Your task to perform on an android device: toggle pop-ups in chrome Image 0: 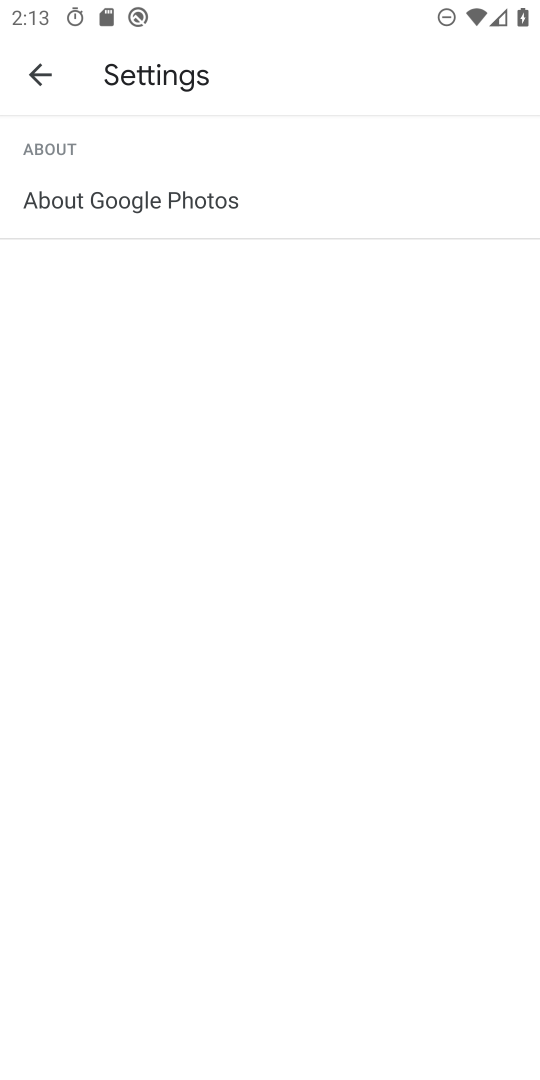
Step 0: press home button
Your task to perform on an android device: toggle pop-ups in chrome Image 1: 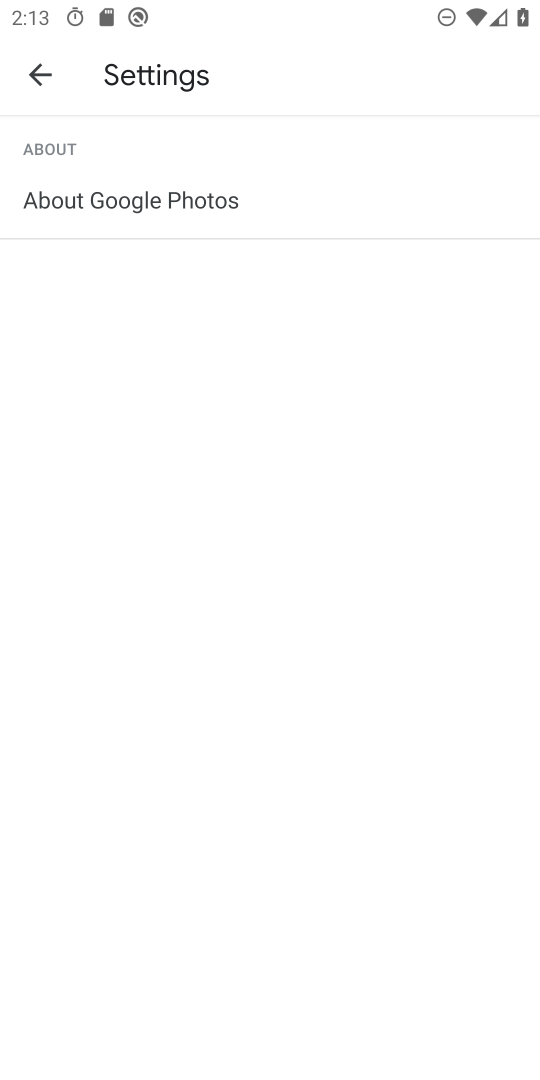
Step 1: press home button
Your task to perform on an android device: toggle pop-ups in chrome Image 2: 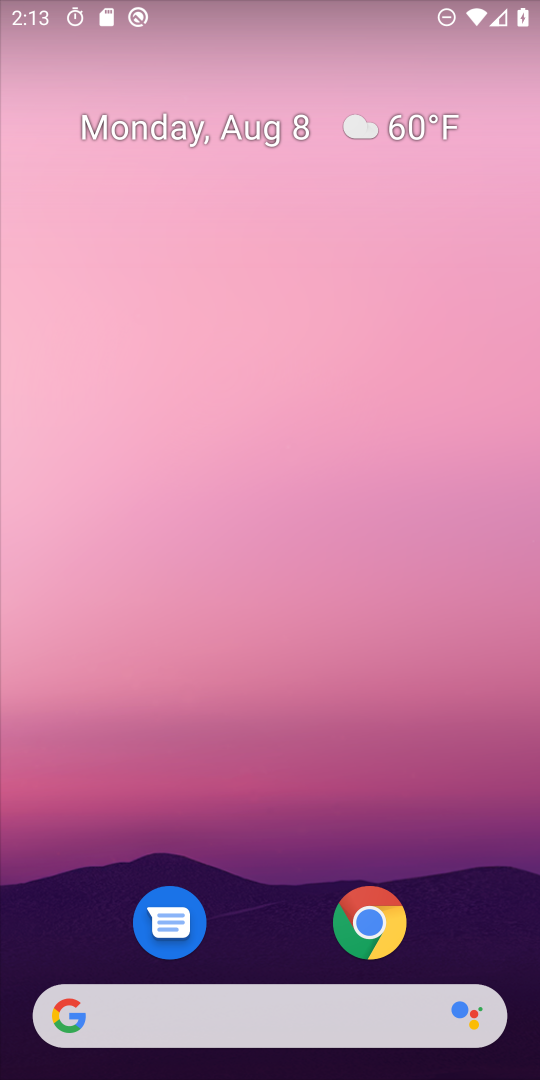
Step 2: drag from (291, 865) to (347, 63)
Your task to perform on an android device: toggle pop-ups in chrome Image 3: 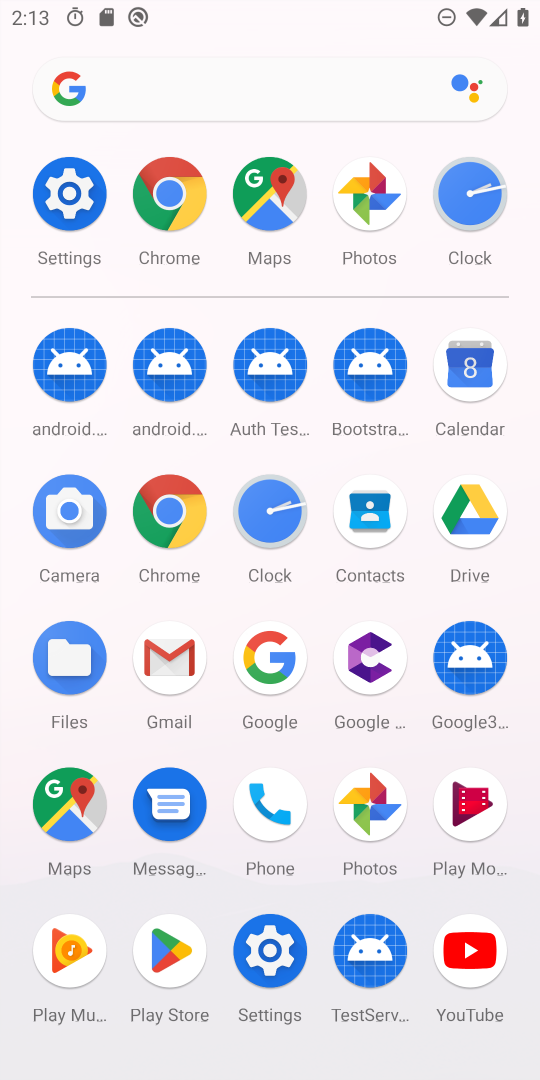
Step 3: click (171, 512)
Your task to perform on an android device: toggle pop-ups in chrome Image 4: 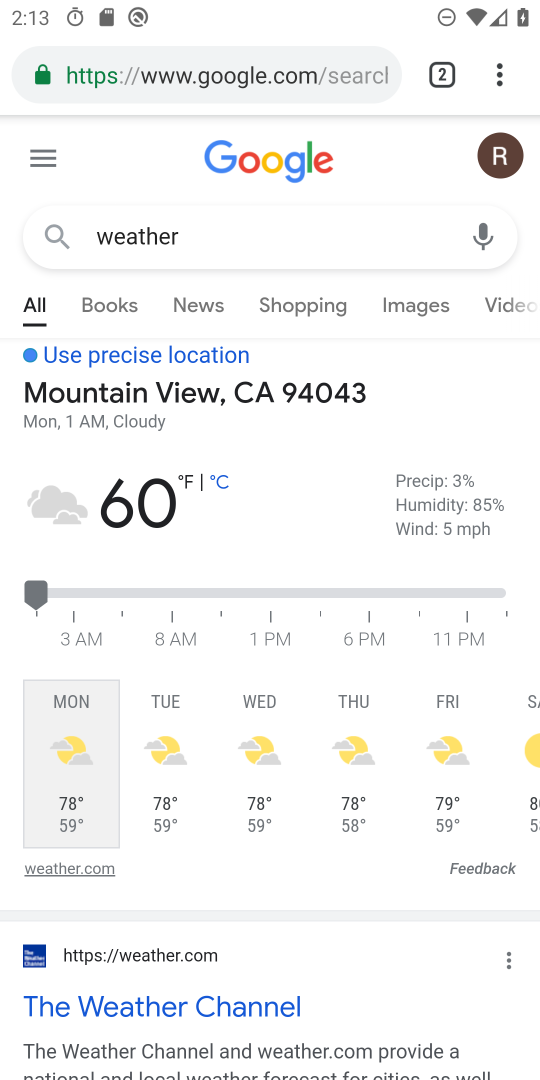
Step 4: drag from (496, 66) to (261, 900)
Your task to perform on an android device: toggle pop-ups in chrome Image 5: 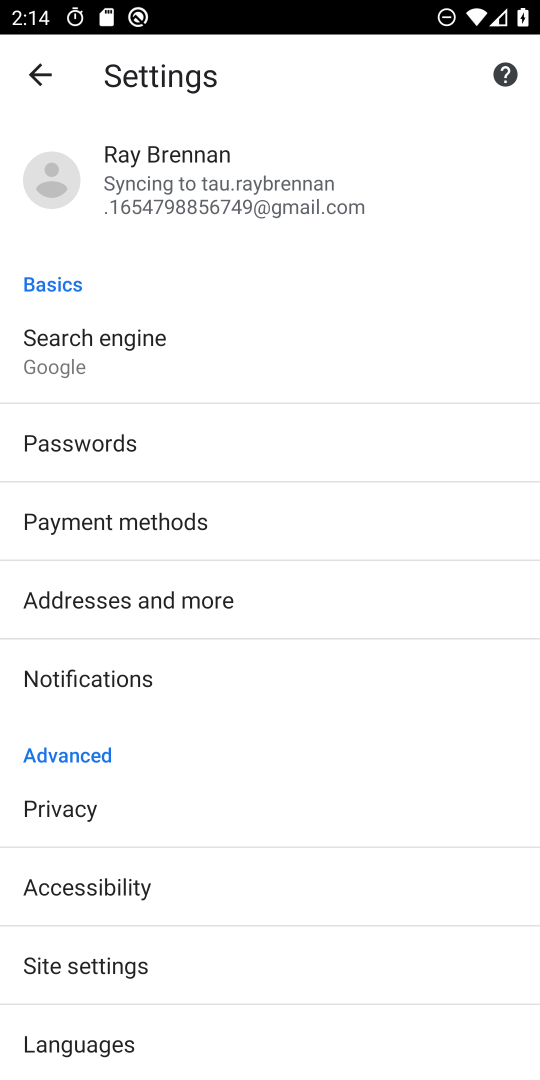
Step 5: click (50, 979)
Your task to perform on an android device: toggle pop-ups in chrome Image 6: 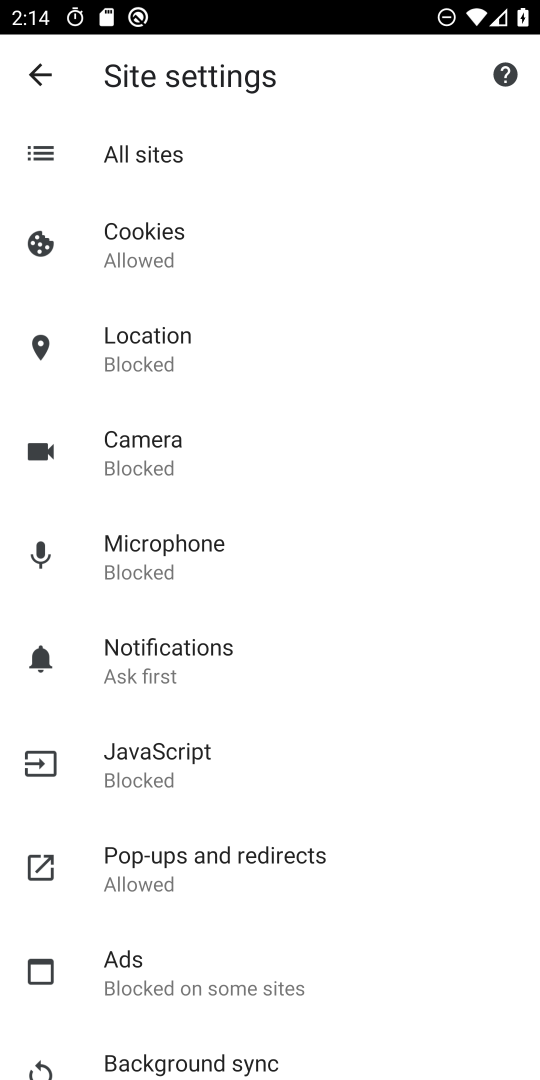
Step 6: click (110, 868)
Your task to perform on an android device: toggle pop-ups in chrome Image 7: 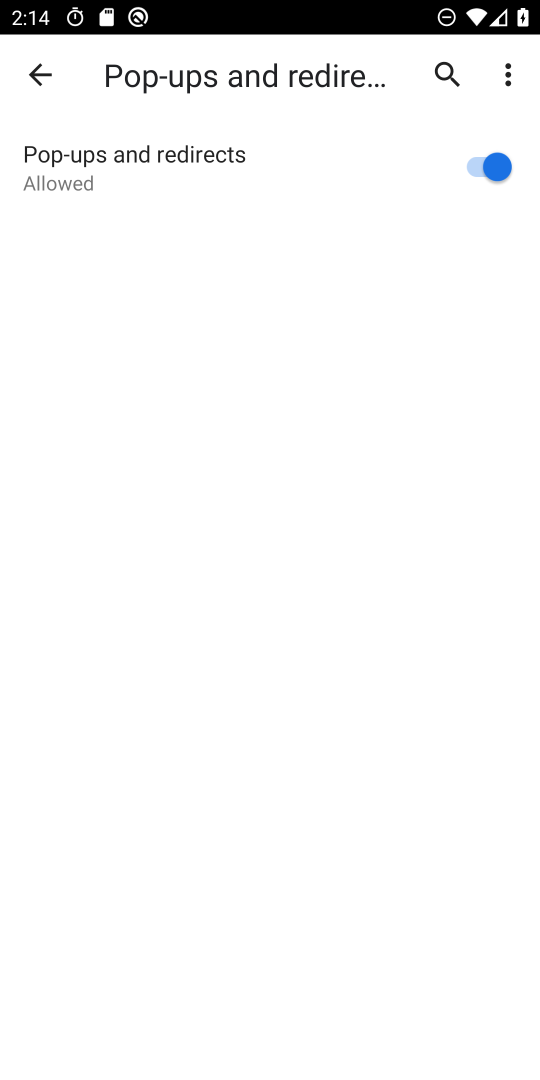
Step 7: task complete